Your task to perform on an android device: Turn on the flashlight Image 0: 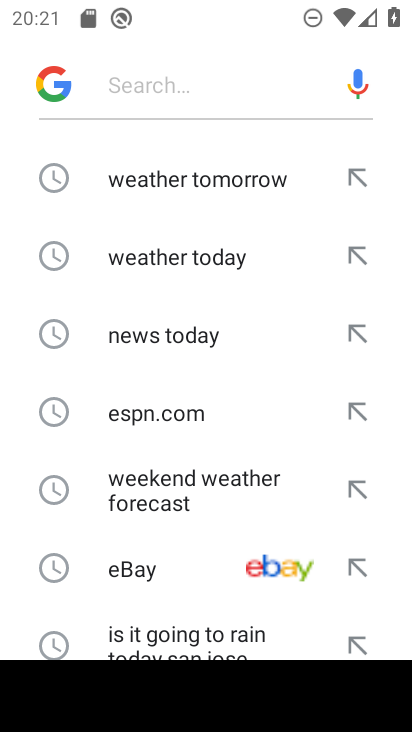
Step 0: press home button
Your task to perform on an android device: Turn on the flashlight Image 1: 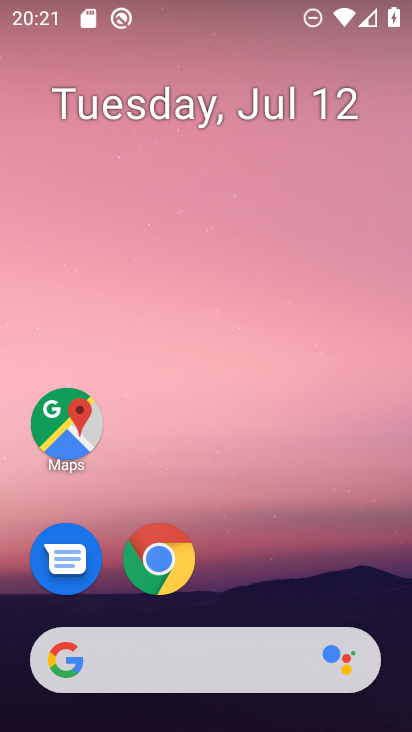
Step 1: drag from (245, 0) to (229, 409)
Your task to perform on an android device: Turn on the flashlight Image 2: 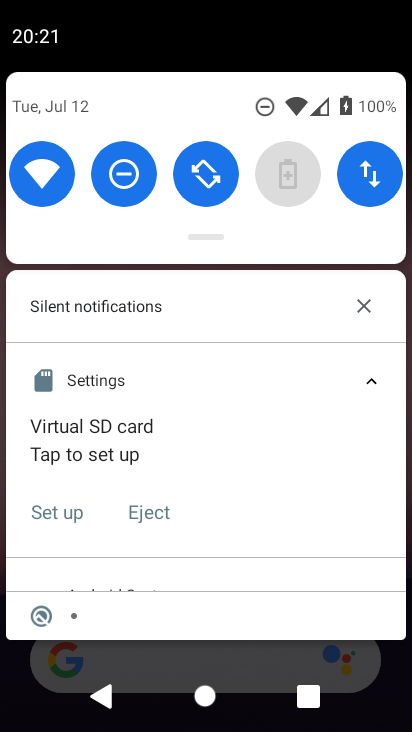
Step 2: drag from (234, 99) to (231, 368)
Your task to perform on an android device: Turn on the flashlight Image 3: 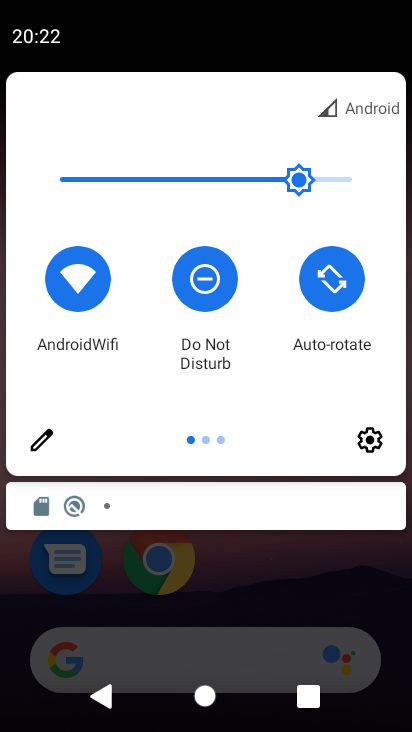
Step 3: click (47, 439)
Your task to perform on an android device: Turn on the flashlight Image 4: 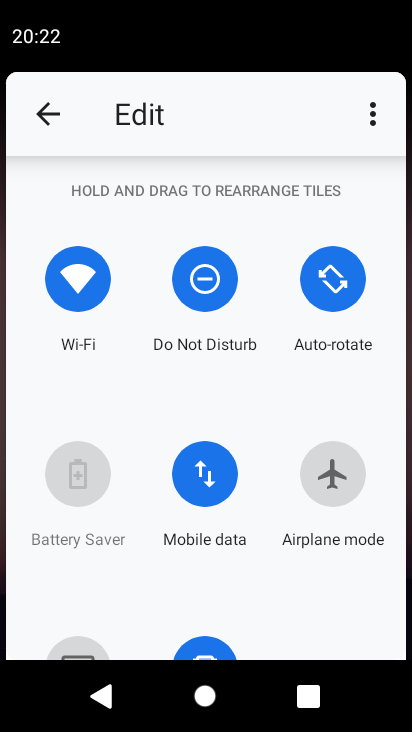
Step 4: task complete